Your task to perform on an android device: check google app version Image 0: 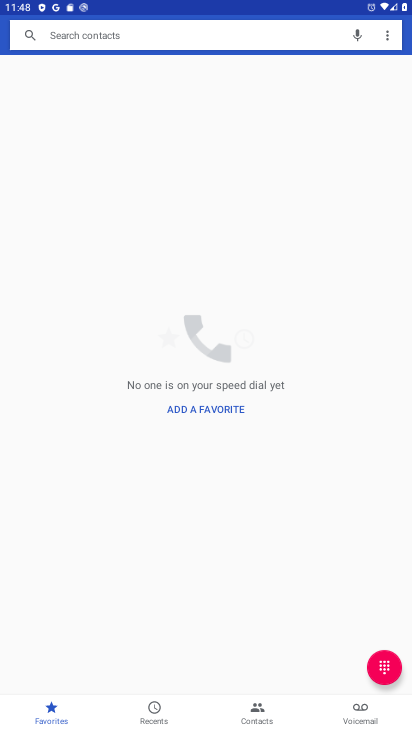
Step 0: press home button
Your task to perform on an android device: check google app version Image 1: 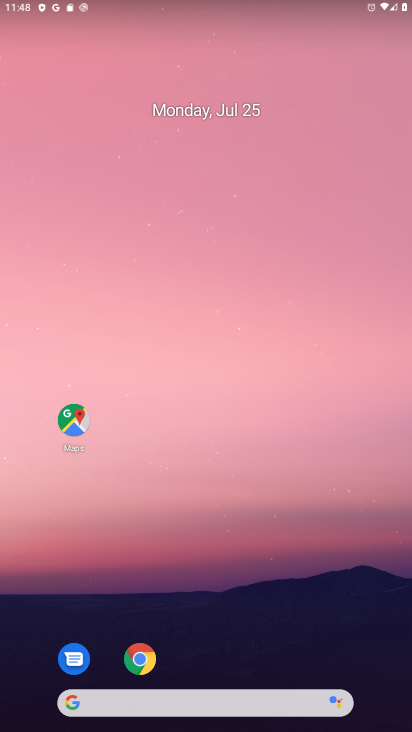
Step 1: drag from (261, 587) to (190, 69)
Your task to perform on an android device: check google app version Image 2: 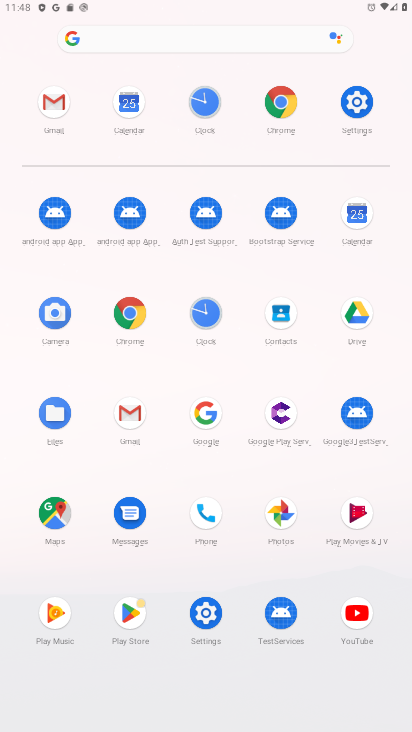
Step 2: click (208, 411)
Your task to perform on an android device: check google app version Image 3: 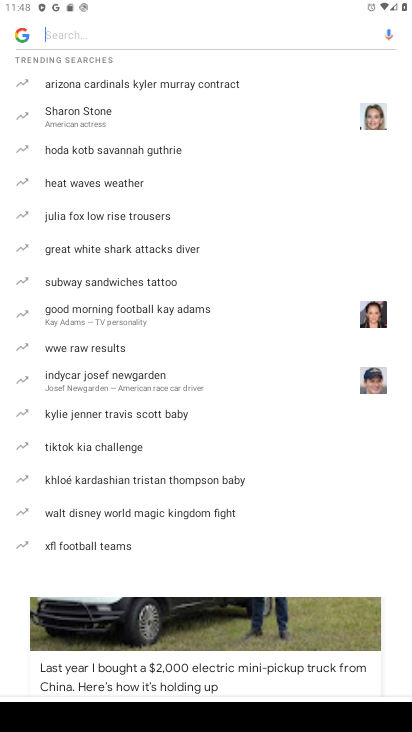
Step 3: click (12, 29)
Your task to perform on an android device: check google app version Image 4: 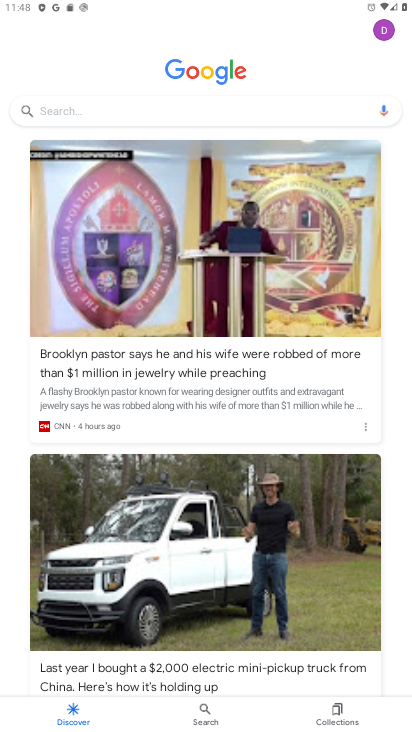
Step 4: click (387, 27)
Your task to perform on an android device: check google app version Image 5: 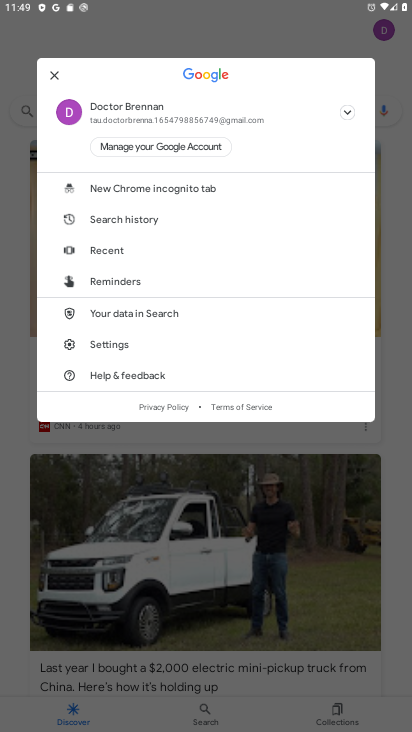
Step 5: click (103, 340)
Your task to perform on an android device: check google app version Image 6: 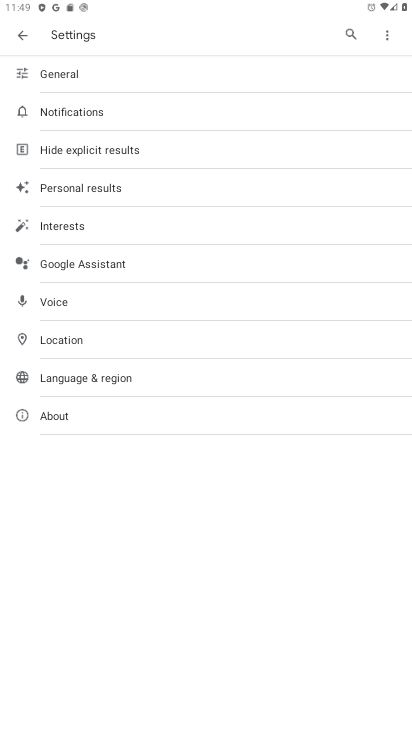
Step 6: click (66, 403)
Your task to perform on an android device: check google app version Image 7: 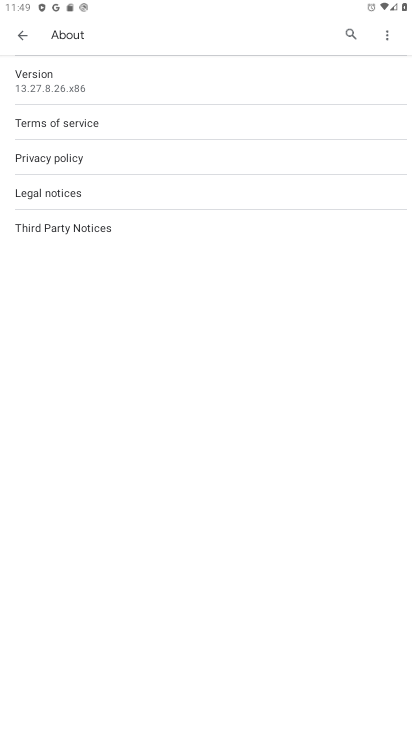
Step 7: task complete